Your task to perform on an android device: turn off notifications in google photos Image 0: 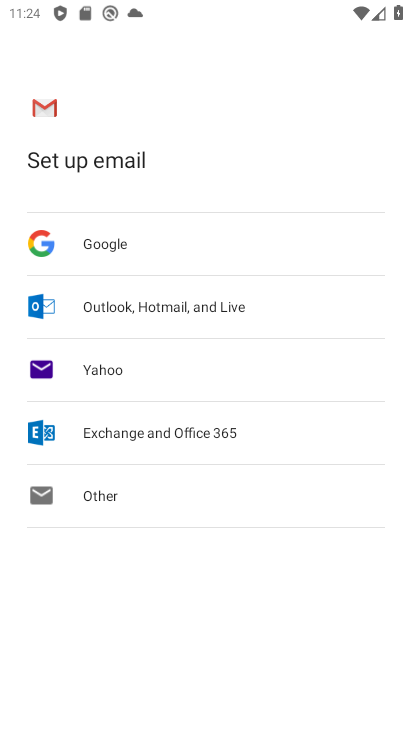
Step 0: press back button
Your task to perform on an android device: turn off notifications in google photos Image 1: 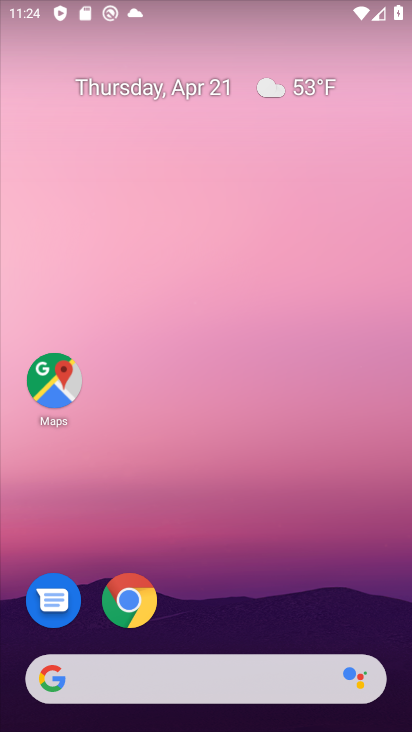
Step 1: drag from (184, 641) to (323, 40)
Your task to perform on an android device: turn off notifications in google photos Image 2: 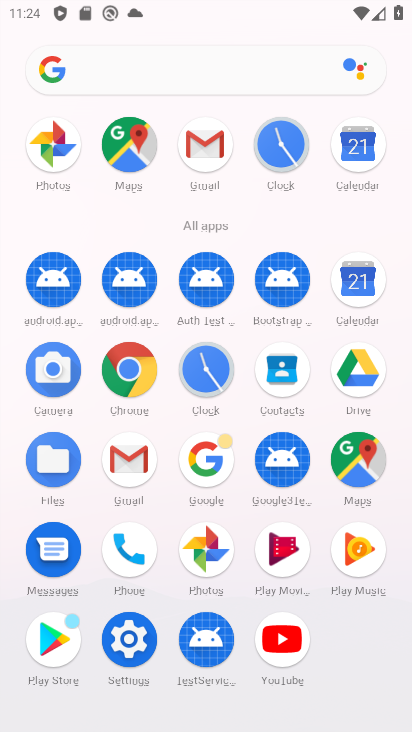
Step 2: click (204, 538)
Your task to perform on an android device: turn off notifications in google photos Image 3: 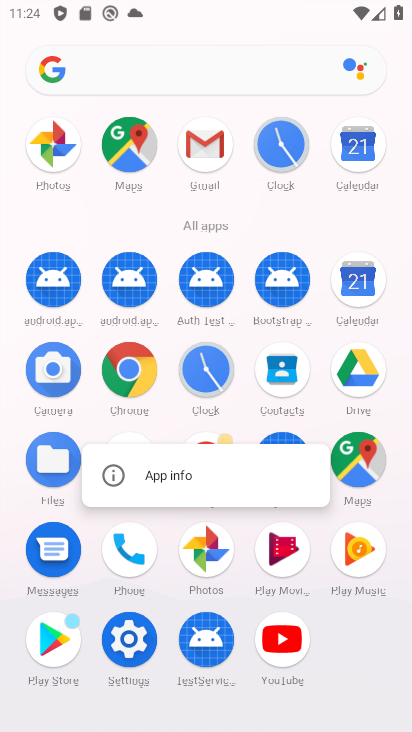
Step 3: click (200, 556)
Your task to perform on an android device: turn off notifications in google photos Image 4: 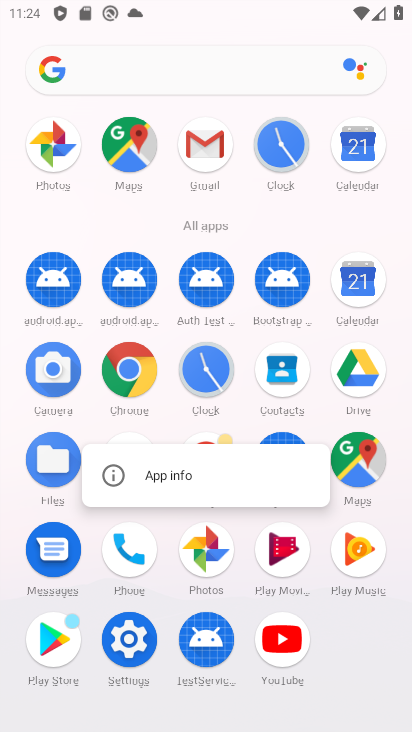
Step 4: click (203, 571)
Your task to perform on an android device: turn off notifications in google photos Image 5: 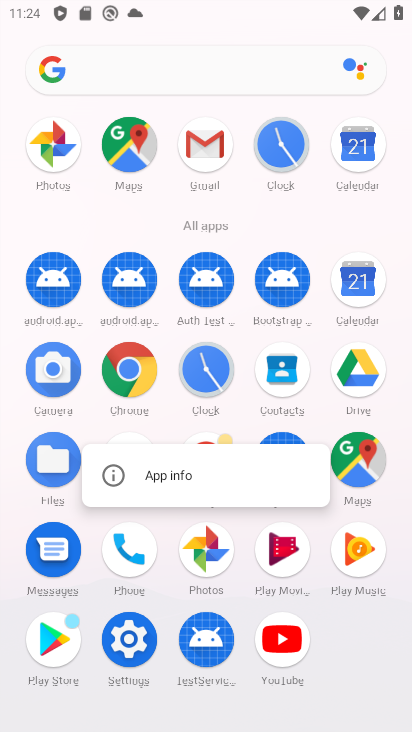
Step 5: click (224, 571)
Your task to perform on an android device: turn off notifications in google photos Image 6: 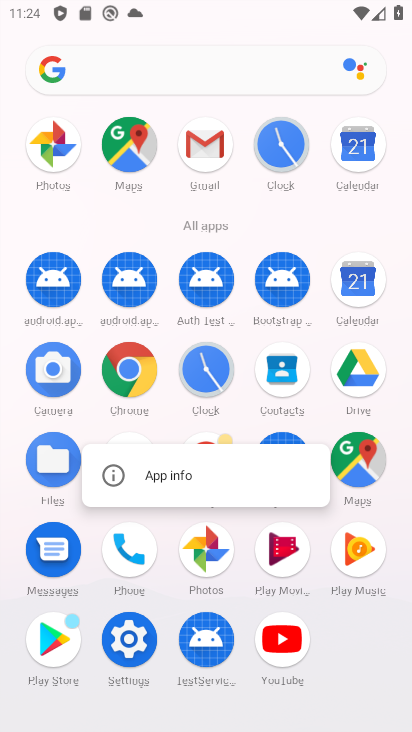
Step 6: click (216, 563)
Your task to perform on an android device: turn off notifications in google photos Image 7: 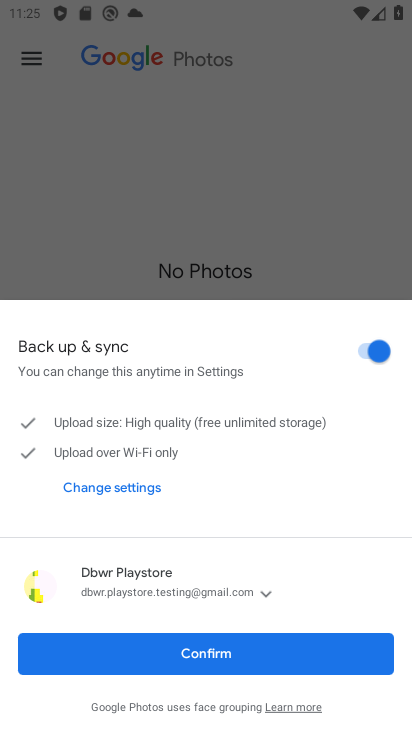
Step 7: click (229, 670)
Your task to perform on an android device: turn off notifications in google photos Image 8: 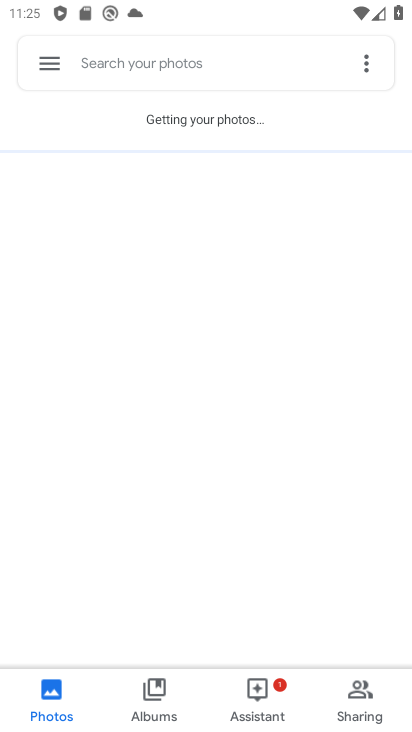
Step 8: click (71, 66)
Your task to perform on an android device: turn off notifications in google photos Image 9: 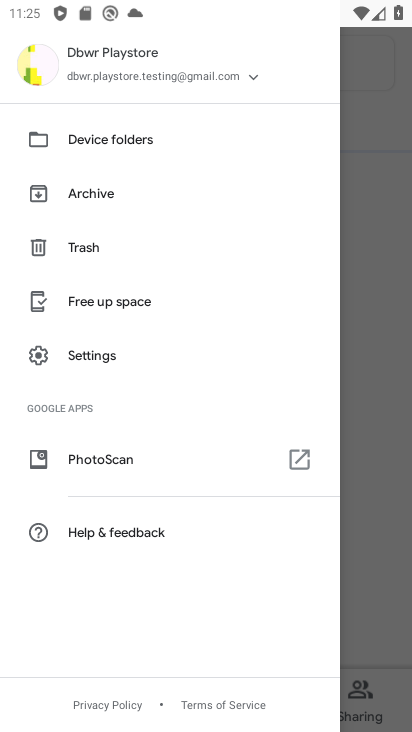
Step 9: click (144, 364)
Your task to perform on an android device: turn off notifications in google photos Image 10: 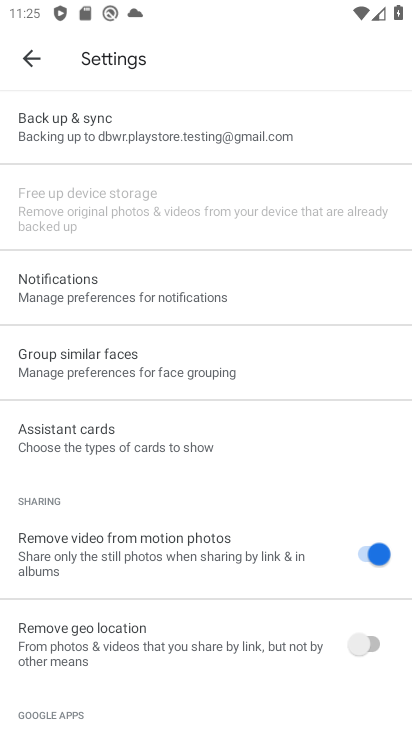
Step 10: click (184, 290)
Your task to perform on an android device: turn off notifications in google photos Image 11: 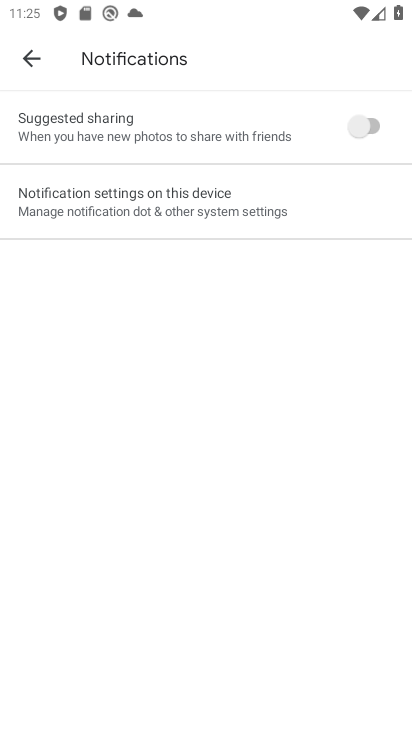
Step 11: click (236, 169)
Your task to perform on an android device: turn off notifications in google photos Image 12: 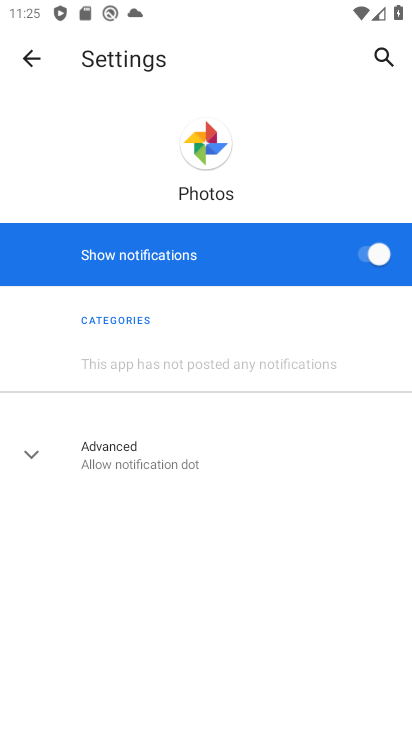
Step 12: click (362, 265)
Your task to perform on an android device: turn off notifications in google photos Image 13: 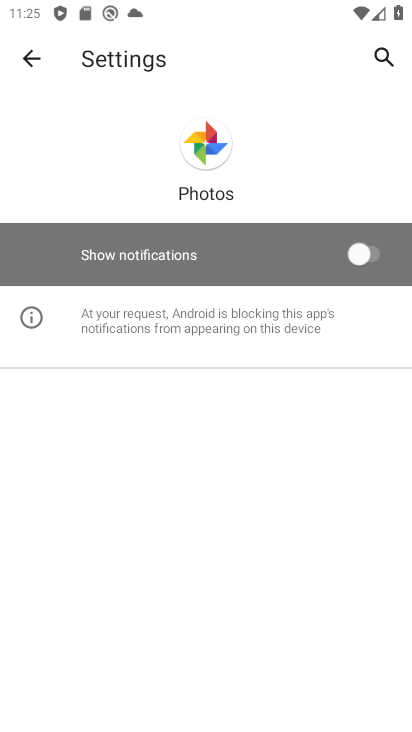
Step 13: task complete